Your task to perform on an android device: Go to privacy settings Image 0: 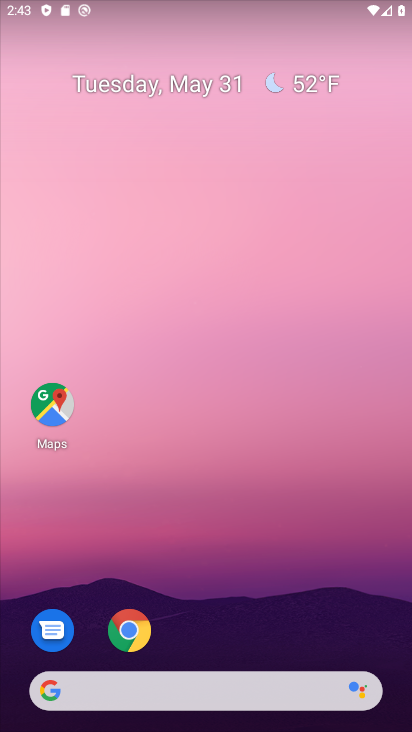
Step 0: drag from (230, 661) to (257, 142)
Your task to perform on an android device: Go to privacy settings Image 1: 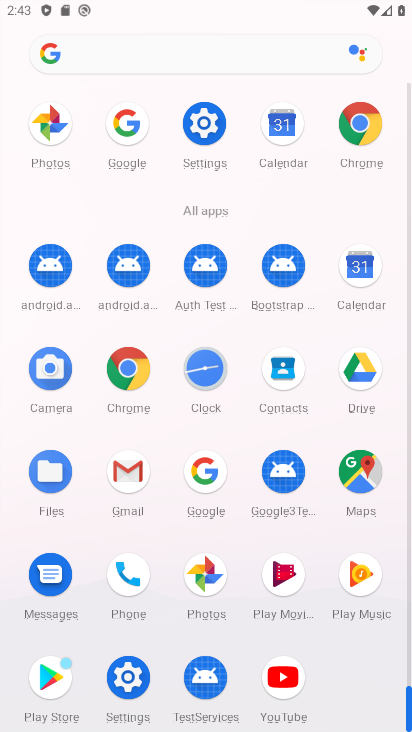
Step 1: click (114, 369)
Your task to perform on an android device: Go to privacy settings Image 2: 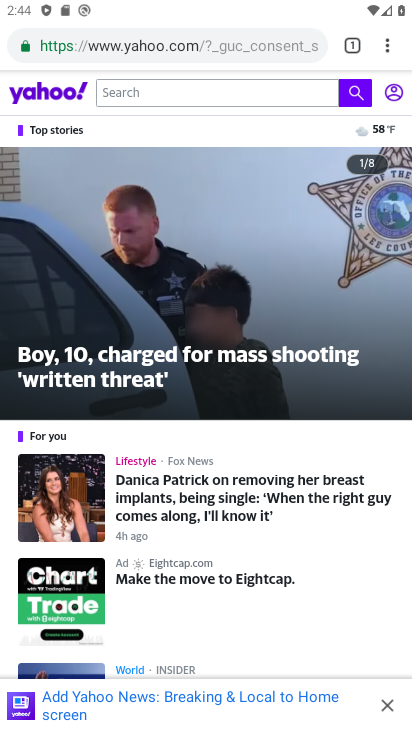
Step 2: press back button
Your task to perform on an android device: Go to privacy settings Image 3: 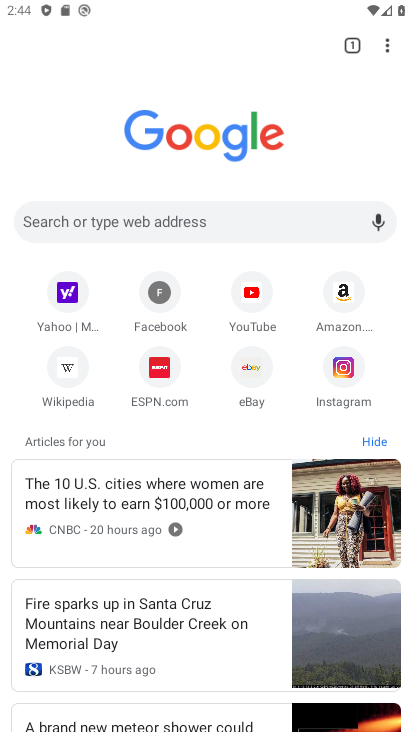
Step 3: press home button
Your task to perform on an android device: Go to privacy settings Image 4: 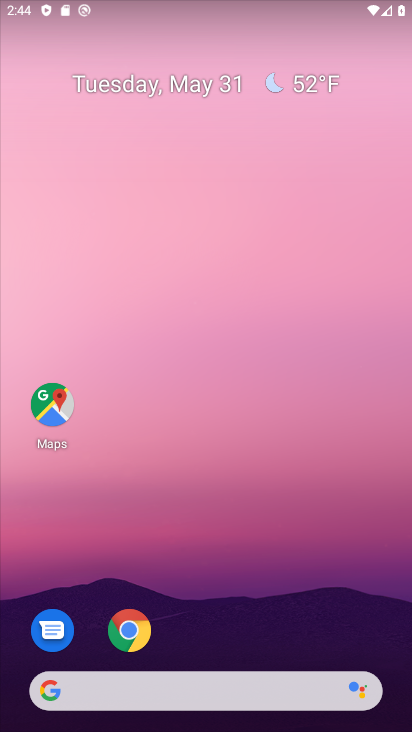
Step 4: drag from (226, 563) to (210, 108)
Your task to perform on an android device: Go to privacy settings Image 5: 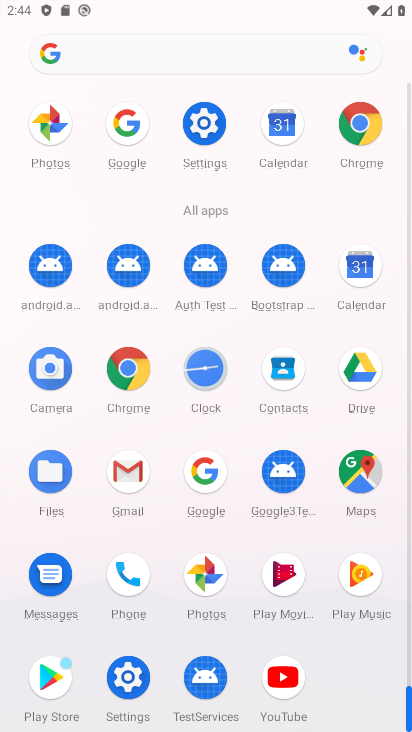
Step 5: click (209, 134)
Your task to perform on an android device: Go to privacy settings Image 6: 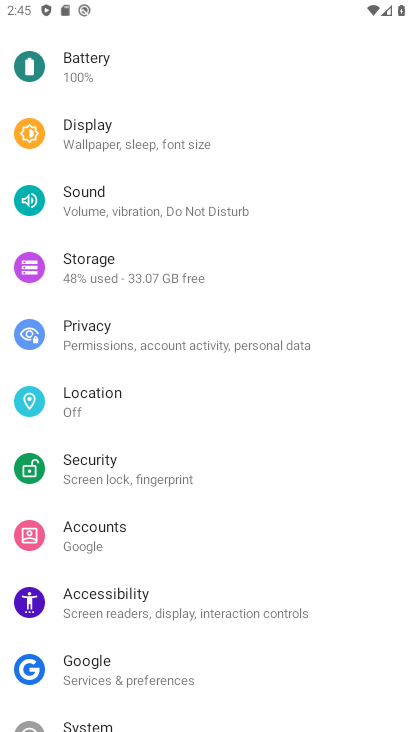
Step 6: click (114, 334)
Your task to perform on an android device: Go to privacy settings Image 7: 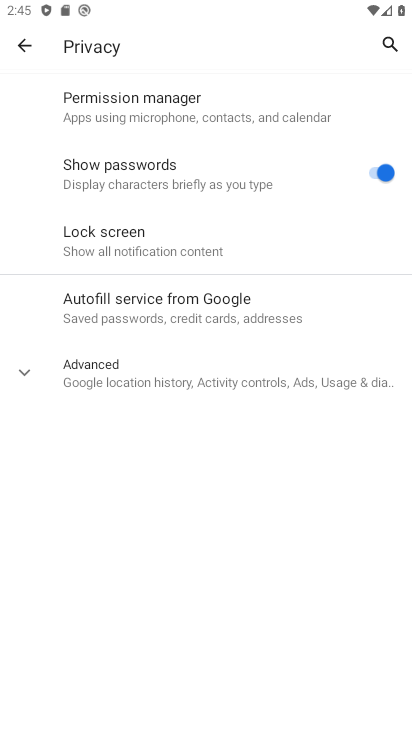
Step 7: task complete